Your task to perform on an android device: toggle pop-ups in chrome Image 0: 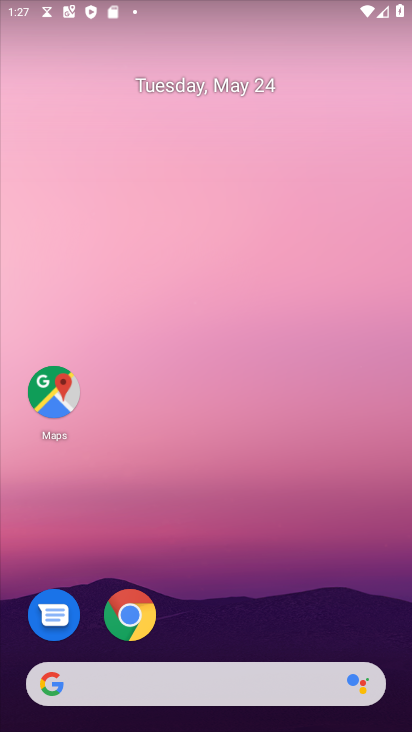
Step 0: press home button
Your task to perform on an android device: toggle pop-ups in chrome Image 1: 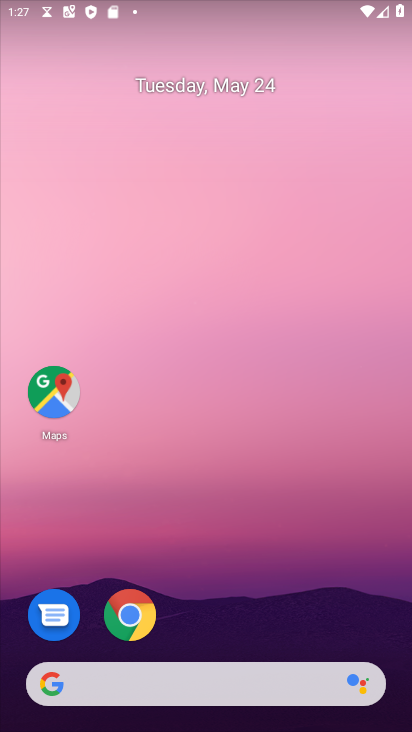
Step 1: click (128, 609)
Your task to perform on an android device: toggle pop-ups in chrome Image 2: 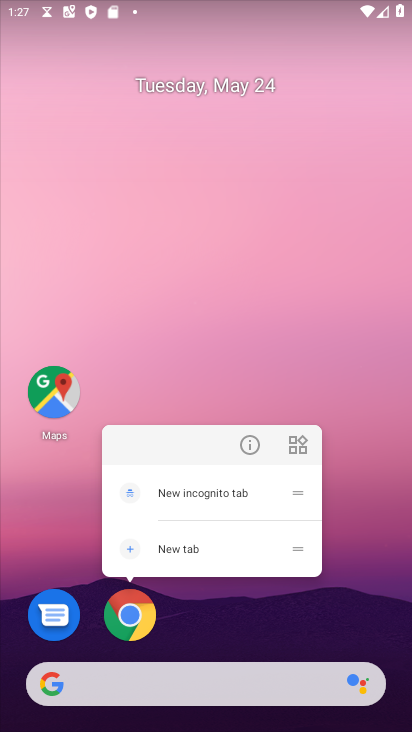
Step 2: click (128, 609)
Your task to perform on an android device: toggle pop-ups in chrome Image 3: 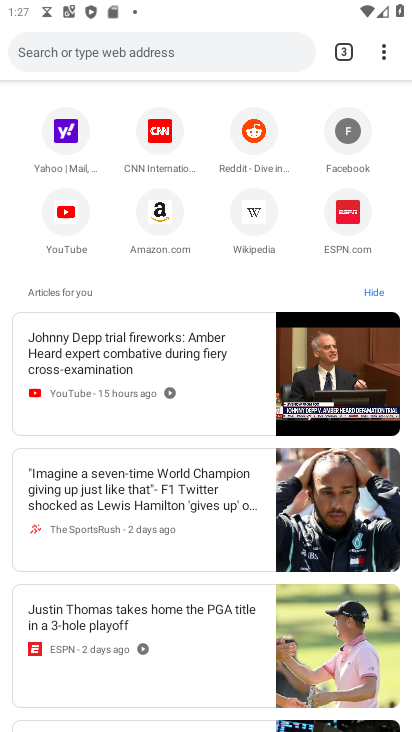
Step 3: click (382, 48)
Your task to perform on an android device: toggle pop-ups in chrome Image 4: 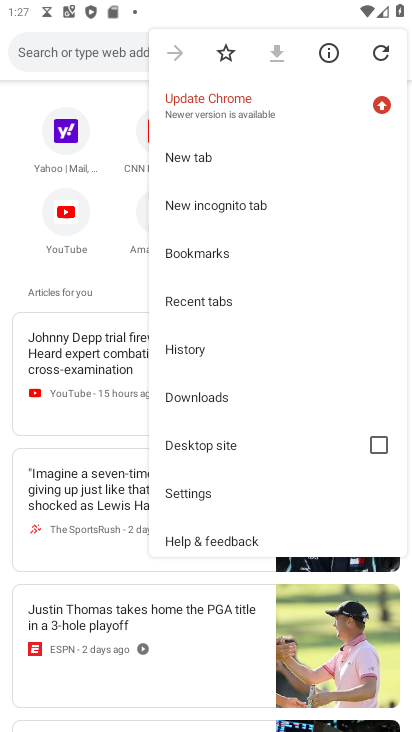
Step 4: click (224, 489)
Your task to perform on an android device: toggle pop-ups in chrome Image 5: 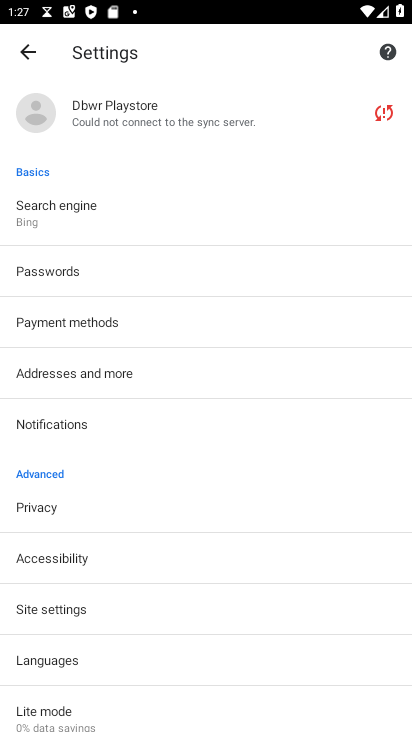
Step 5: click (106, 604)
Your task to perform on an android device: toggle pop-ups in chrome Image 6: 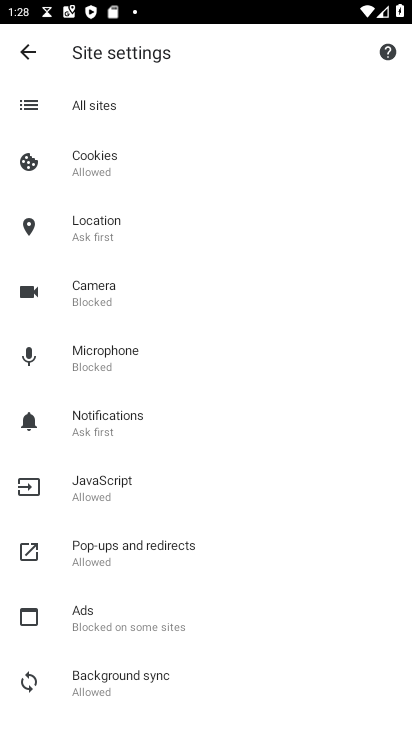
Step 6: click (205, 543)
Your task to perform on an android device: toggle pop-ups in chrome Image 7: 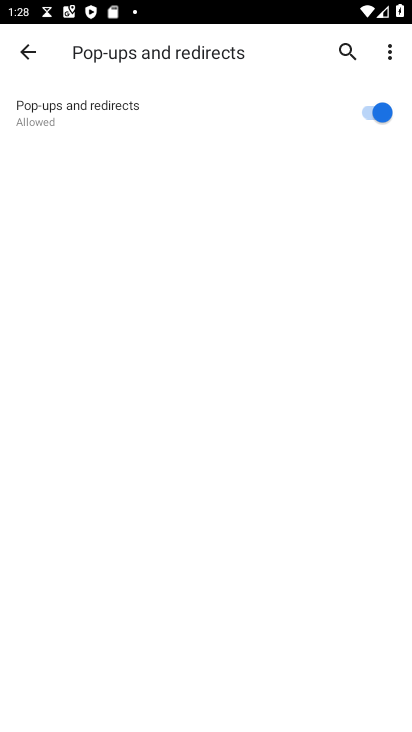
Step 7: task complete